Your task to perform on an android device: turn off priority inbox in the gmail app Image 0: 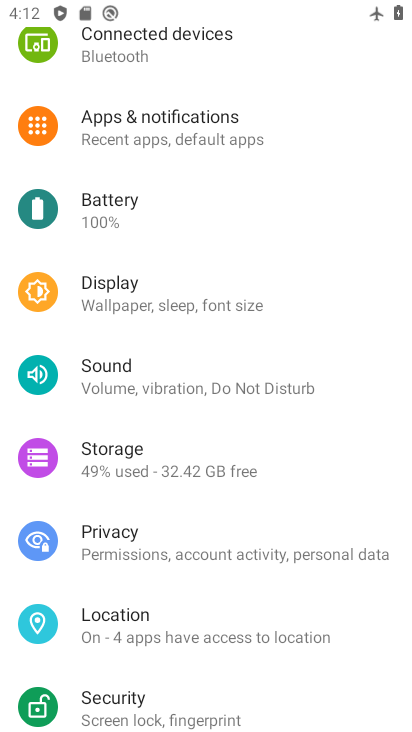
Step 0: press home button
Your task to perform on an android device: turn off priority inbox in the gmail app Image 1: 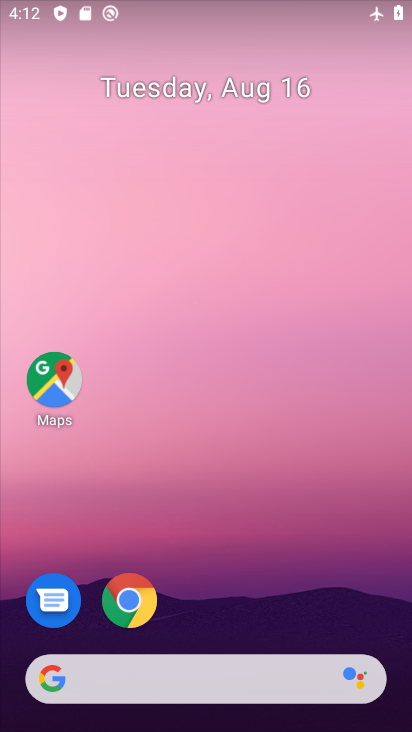
Step 1: drag from (202, 643) to (249, 62)
Your task to perform on an android device: turn off priority inbox in the gmail app Image 2: 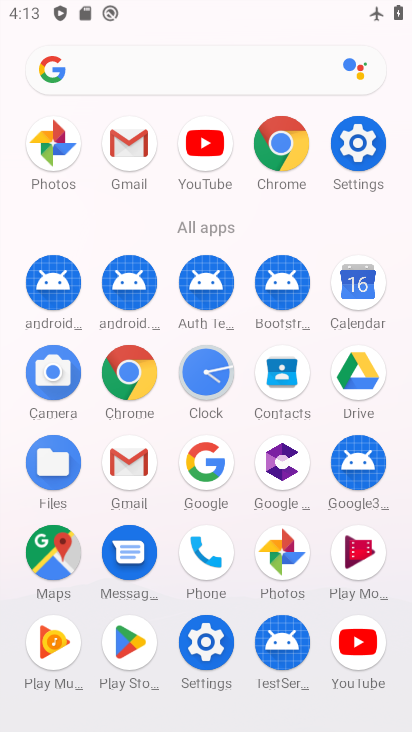
Step 2: click (126, 472)
Your task to perform on an android device: turn off priority inbox in the gmail app Image 3: 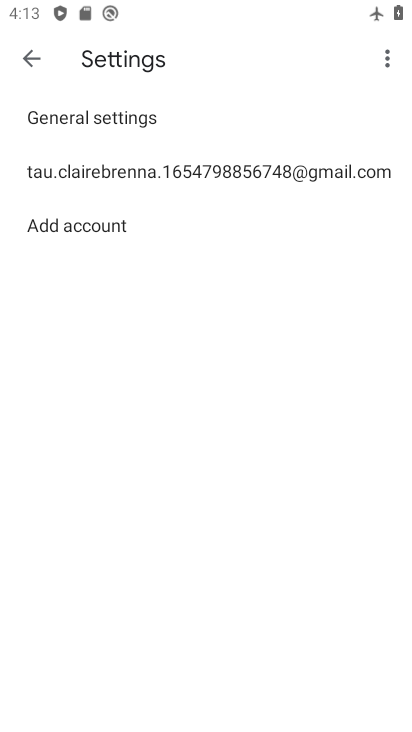
Step 3: click (122, 163)
Your task to perform on an android device: turn off priority inbox in the gmail app Image 4: 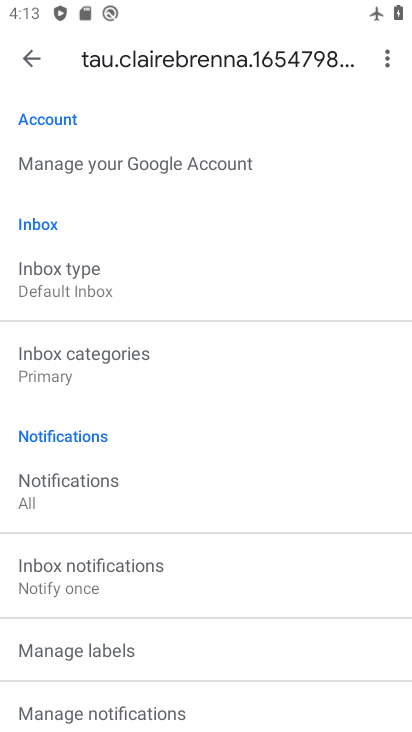
Step 4: click (123, 266)
Your task to perform on an android device: turn off priority inbox in the gmail app Image 5: 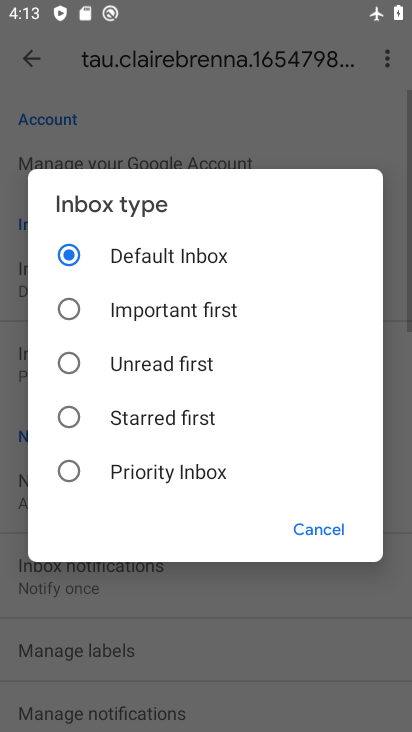
Step 5: click (179, 477)
Your task to perform on an android device: turn off priority inbox in the gmail app Image 6: 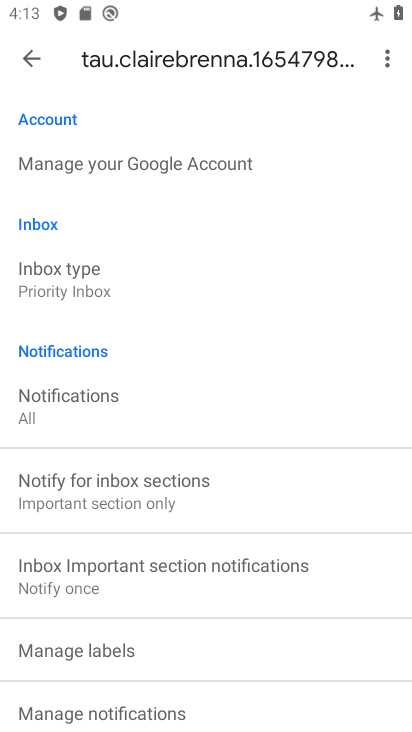
Step 6: task complete